Your task to perform on an android device: Open the map Image 0: 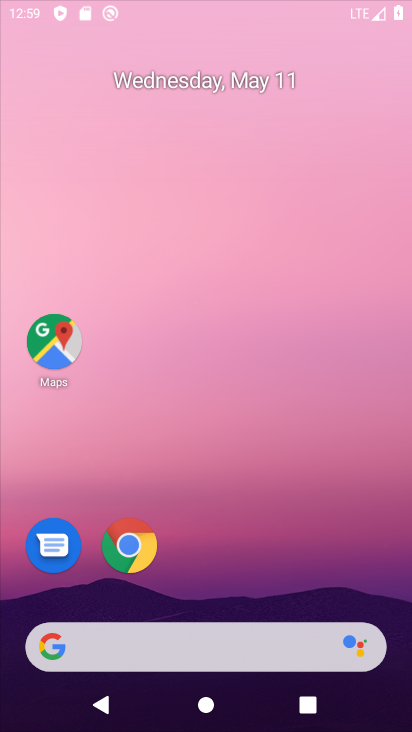
Step 0: drag from (311, 366) to (323, 306)
Your task to perform on an android device: Open the map Image 1: 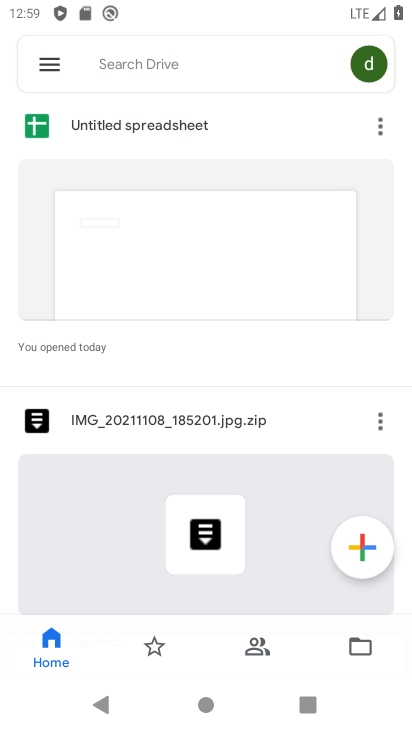
Step 1: press home button
Your task to perform on an android device: Open the map Image 2: 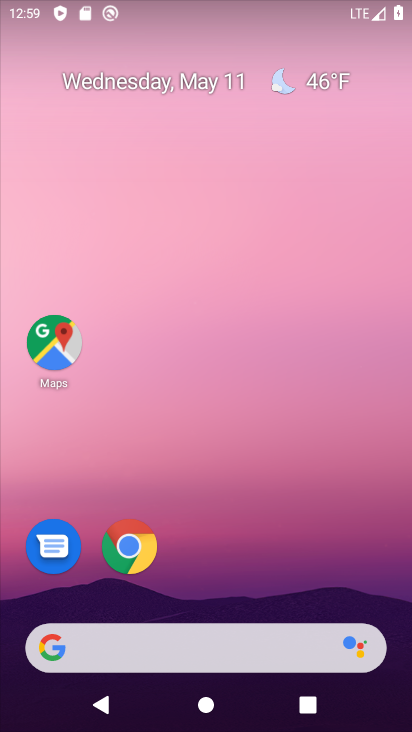
Step 2: drag from (280, 683) to (337, 310)
Your task to perform on an android device: Open the map Image 3: 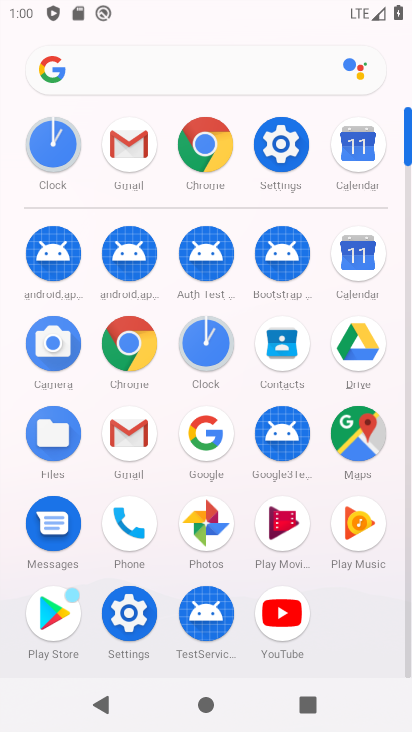
Step 3: click (352, 425)
Your task to perform on an android device: Open the map Image 4: 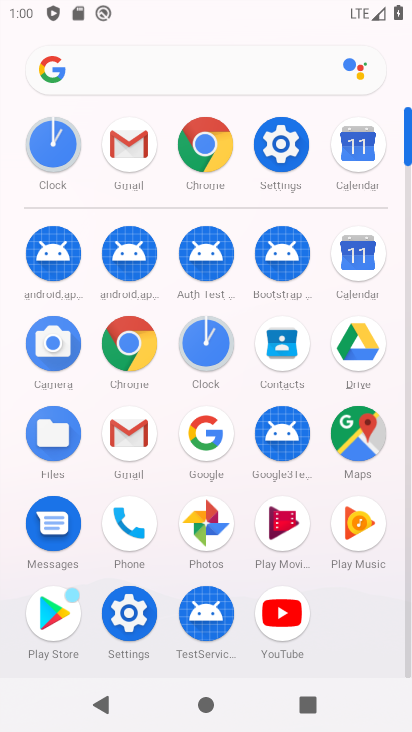
Step 4: click (336, 423)
Your task to perform on an android device: Open the map Image 5: 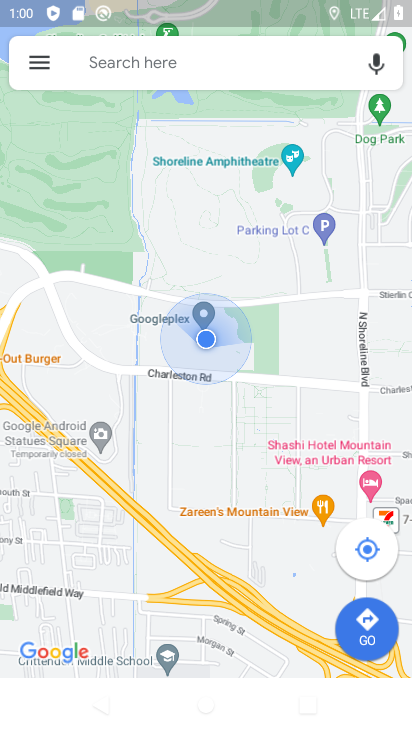
Step 5: task complete